Your task to perform on an android device: toggle improve location accuracy Image 0: 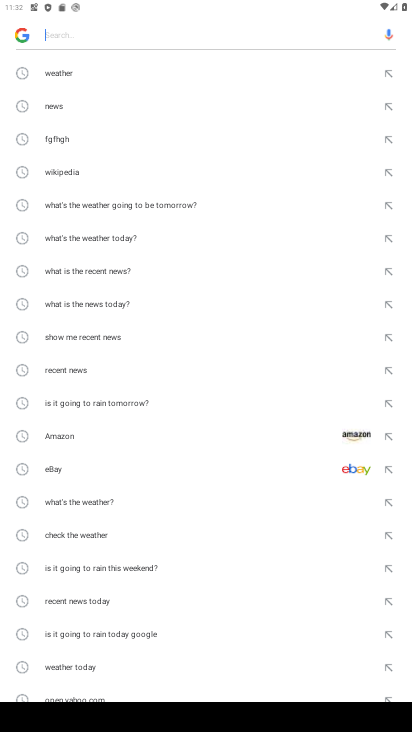
Step 0: press home button
Your task to perform on an android device: toggle improve location accuracy Image 1: 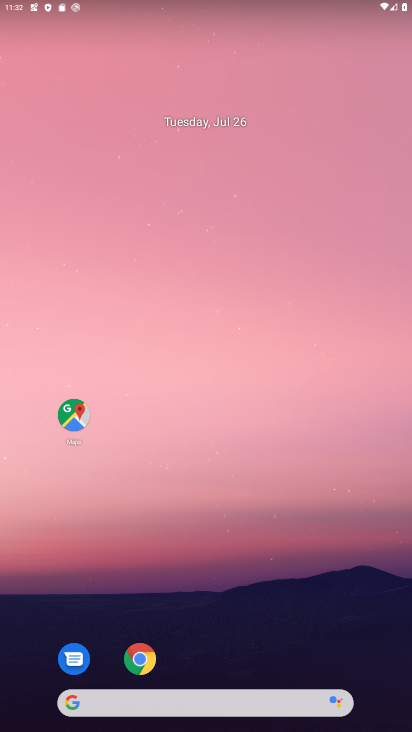
Step 1: drag from (214, 688) to (312, 120)
Your task to perform on an android device: toggle improve location accuracy Image 2: 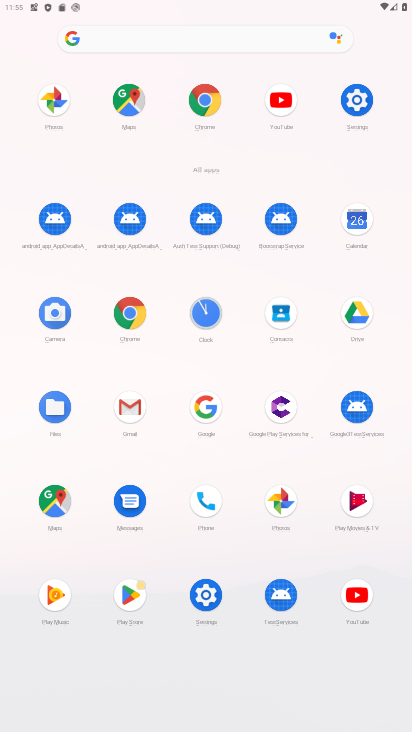
Step 2: click (208, 599)
Your task to perform on an android device: toggle improve location accuracy Image 3: 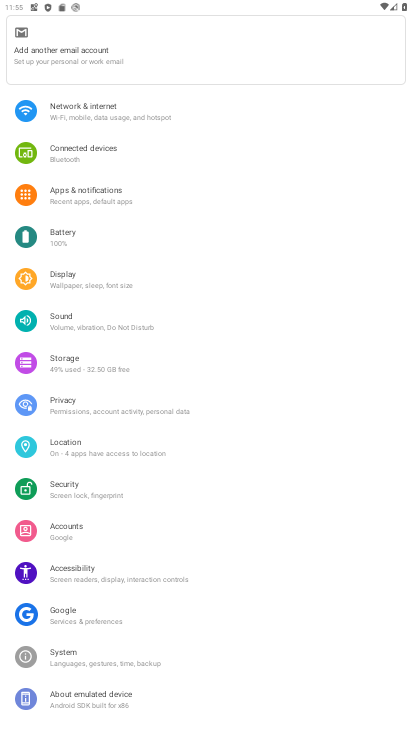
Step 3: drag from (155, 331) to (110, 207)
Your task to perform on an android device: toggle improve location accuracy Image 4: 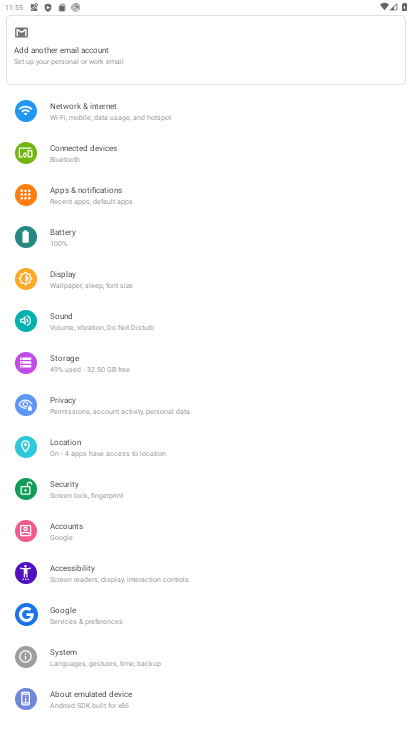
Step 4: click (95, 455)
Your task to perform on an android device: toggle improve location accuracy Image 5: 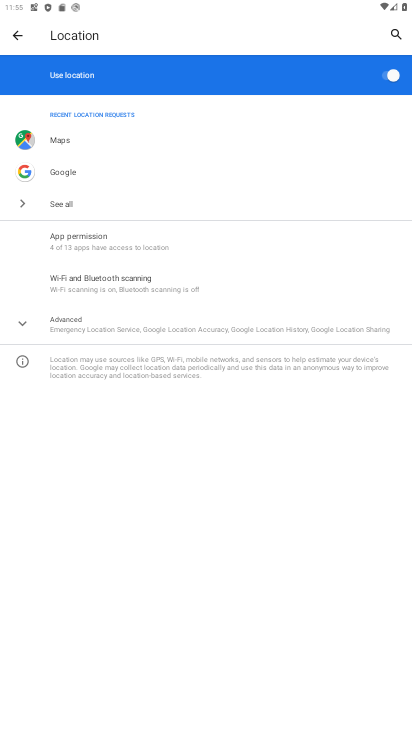
Step 5: click (71, 328)
Your task to perform on an android device: toggle improve location accuracy Image 6: 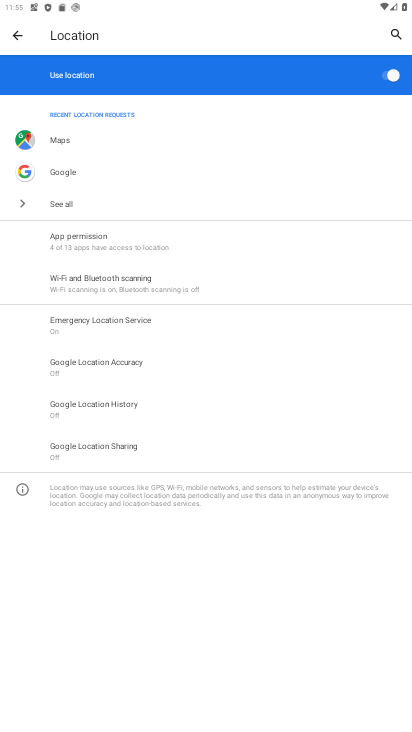
Step 6: click (108, 366)
Your task to perform on an android device: toggle improve location accuracy Image 7: 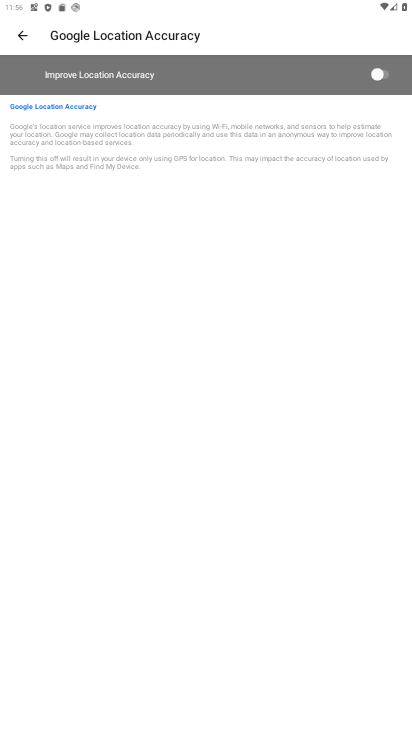
Step 7: click (382, 73)
Your task to perform on an android device: toggle improve location accuracy Image 8: 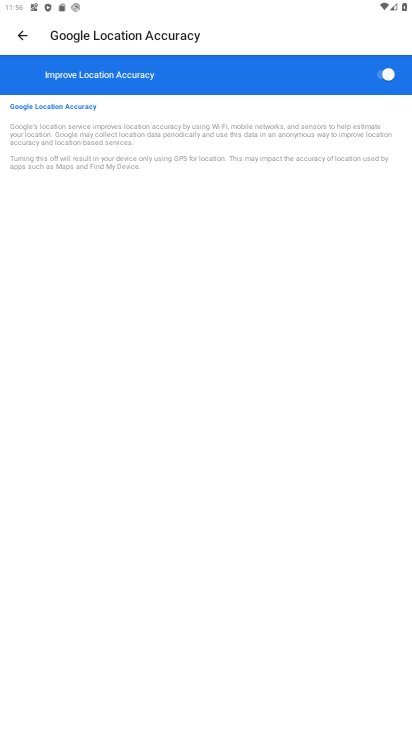
Step 8: task complete